Your task to perform on an android device: Open Google Chrome Image 0: 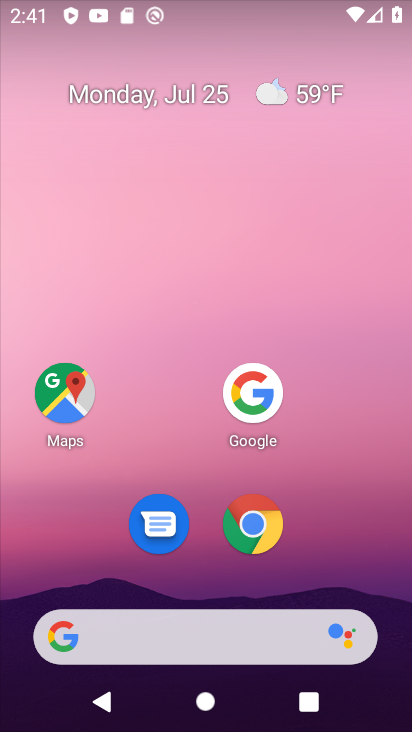
Step 0: press home button
Your task to perform on an android device: Open Google Chrome Image 1: 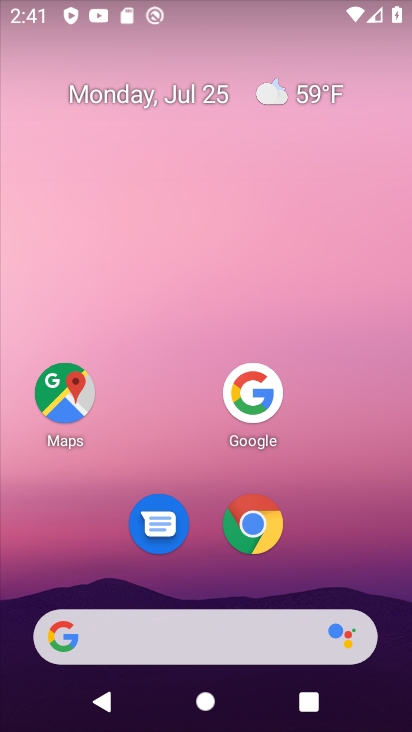
Step 1: click (251, 526)
Your task to perform on an android device: Open Google Chrome Image 2: 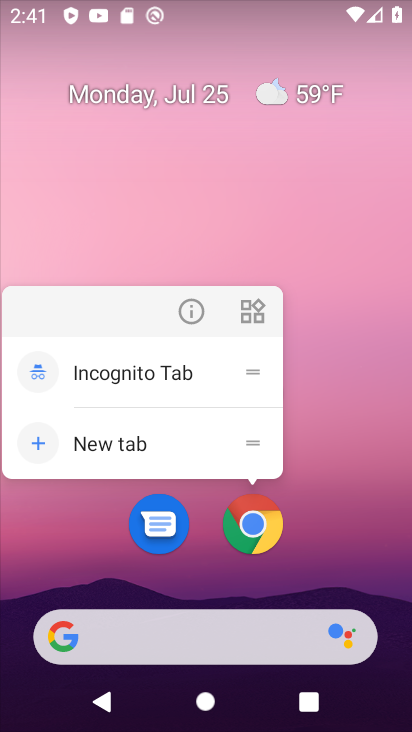
Step 2: click (251, 526)
Your task to perform on an android device: Open Google Chrome Image 3: 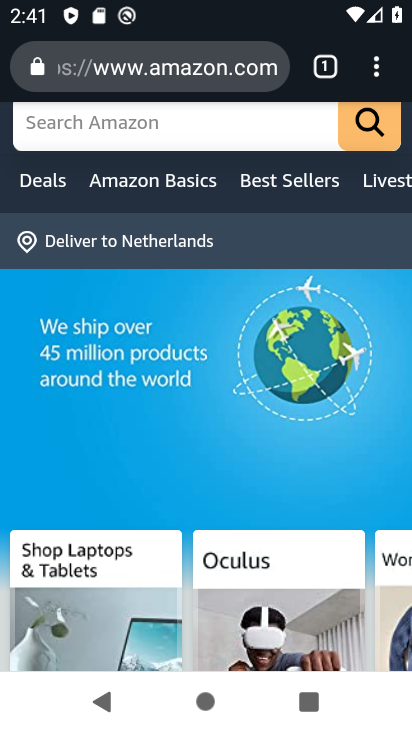
Step 3: task complete